Your task to perform on an android device: Show me the alarms in the clock app Image 0: 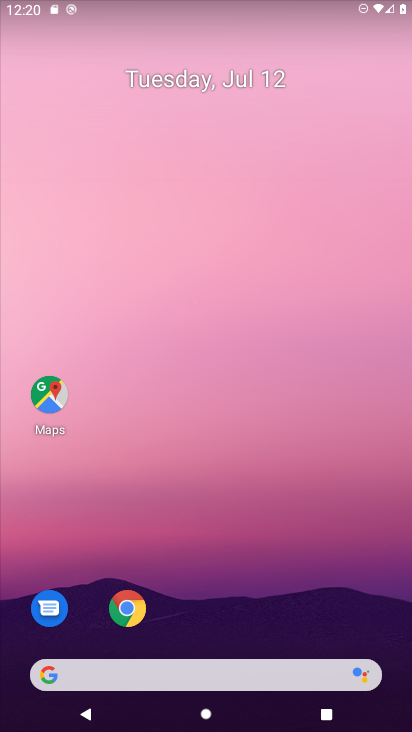
Step 0: drag from (199, 641) to (182, 40)
Your task to perform on an android device: Show me the alarms in the clock app Image 1: 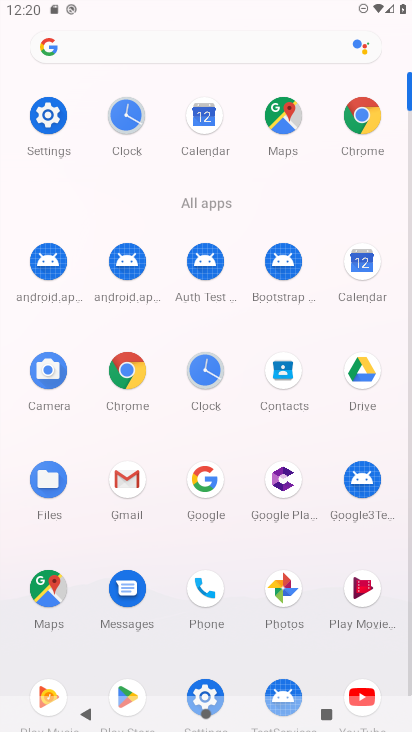
Step 1: click (197, 374)
Your task to perform on an android device: Show me the alarms in the clock app Image 2: 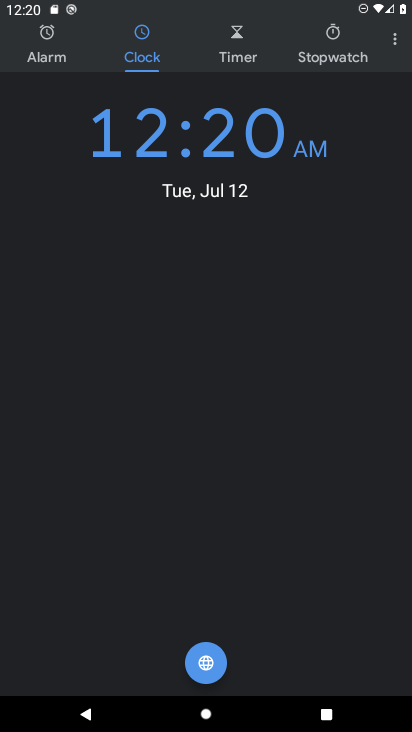
Step 2: click (35, 38)
Your task to perform on an android device: Show me the alarms in the clock app Image 3: 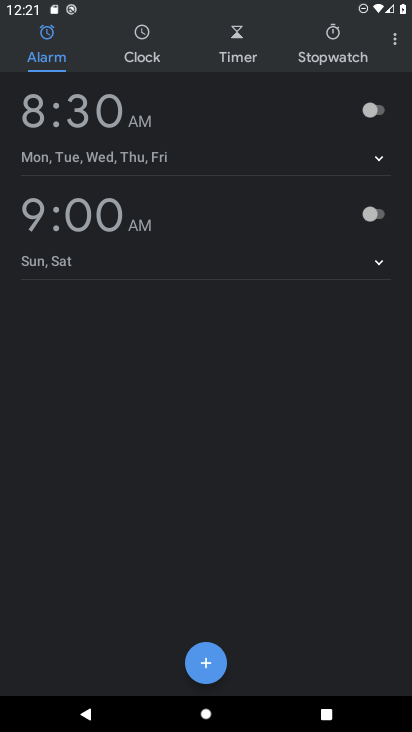
Step 3: click (197, 679)
Your task to perform on an android device: Show me the alarms in the clock app Image 4: 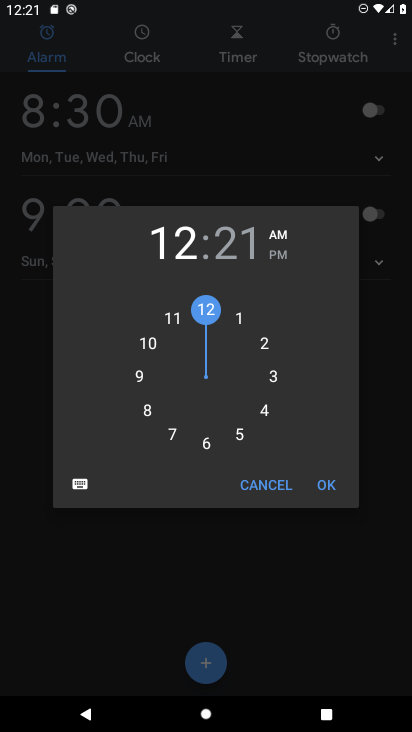
Step 4: click (268, 498)
Your task to perform on an android device: Show me the alarms in the clock app Image 5: 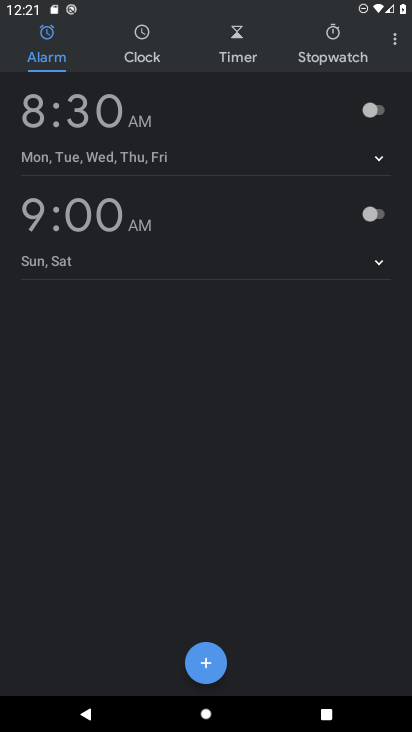
Step 5: task complete